Your task to perform on an android device: check google app version Image 0: 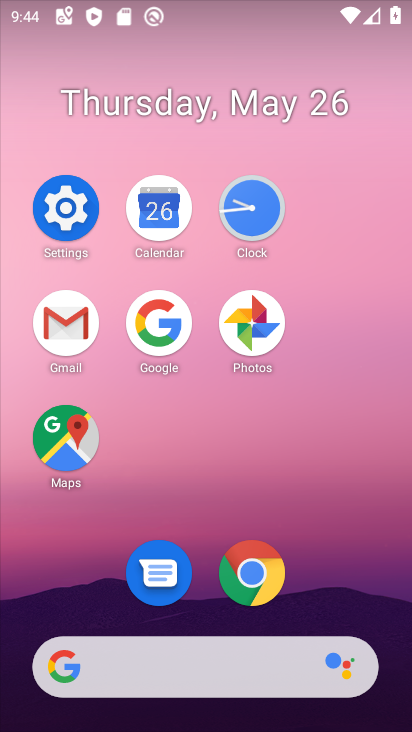
Step 0: click (172, 335)
Your task to perform on an android device: check google app version Image 1: 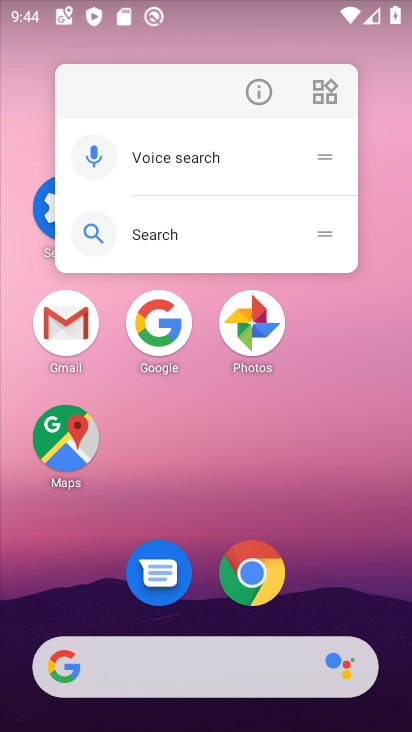
Step 1: click (251, 92)
Your task to perform on an android device: check google app version Image 2: 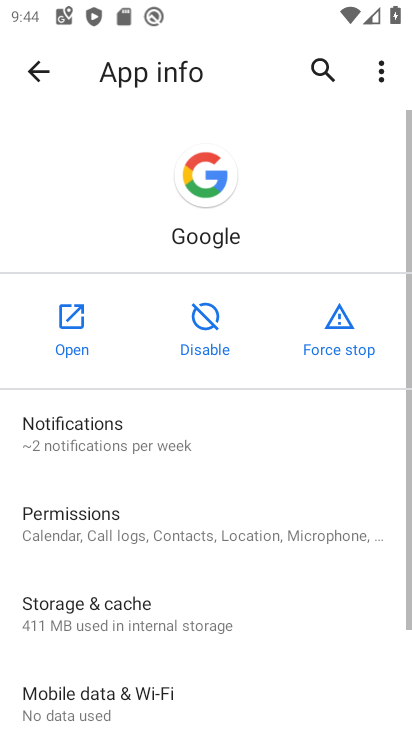
Step 2: drag from (279, 612) to (252, 238)
Your task to perform on an android device: check google app version Image 3: 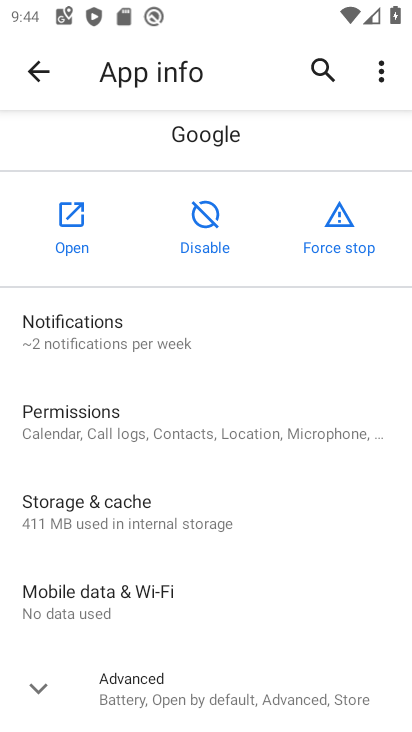
Step 3: click (244, 679)
Your task to perform on an android device: check google app version Image 4: 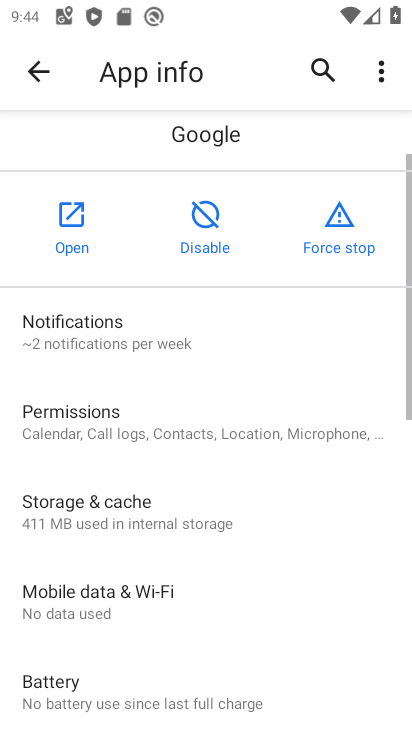
Step 4: task complete